Your task to perform on an android device: What's the weather going to be this weekend? Image 0: 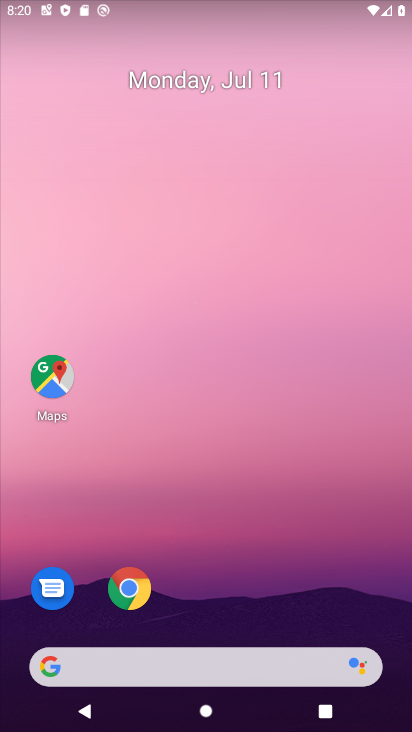
Step 0: click (260, 662)
Your task to perform on an android device: What's the weather going to be this weekend? Image 1: 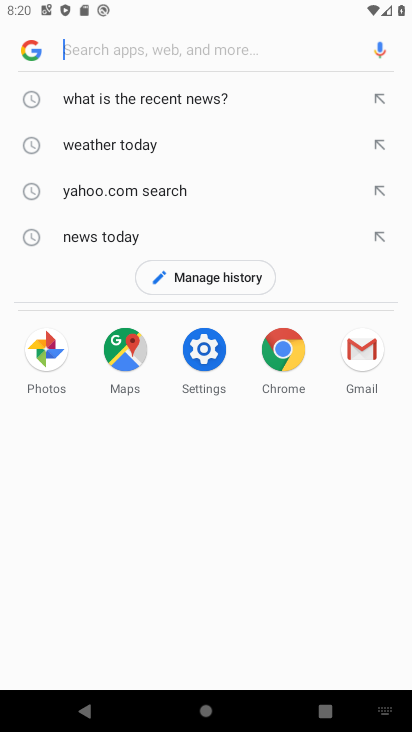
Step 1: type "what's the weather going to be this weekend"
Your task to perform on an android device: What's the weather going to be this weekend? Image 2: 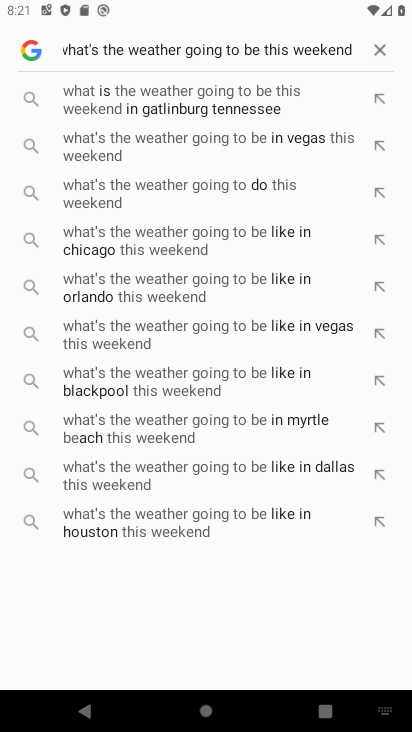
Step 2: type "?"
Your task to perform on an android device: What's the weather going to be this weekend? Image 3: 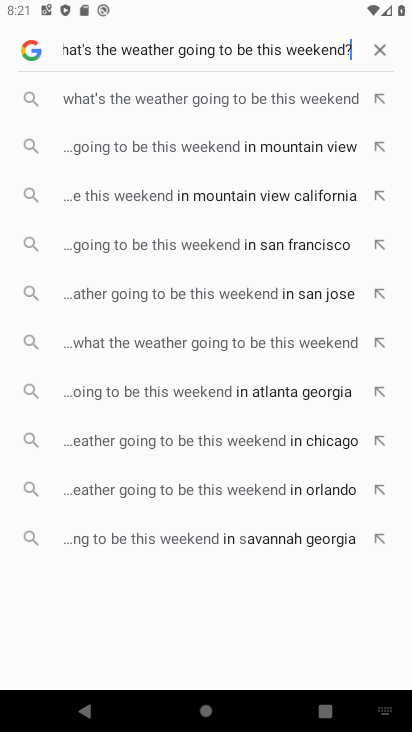
Step 3: click (294, 94)
Your task to perform on an android device: What's the weather going to be this weekend? Image 4: 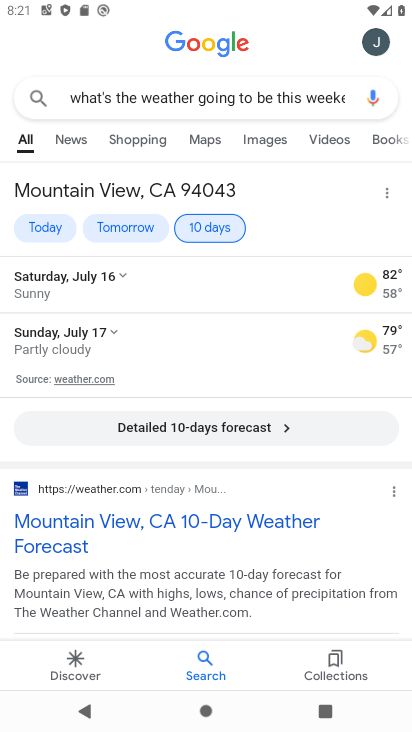
Step 4: task complete